Your task to perform on an android device: Open maps Image 0: 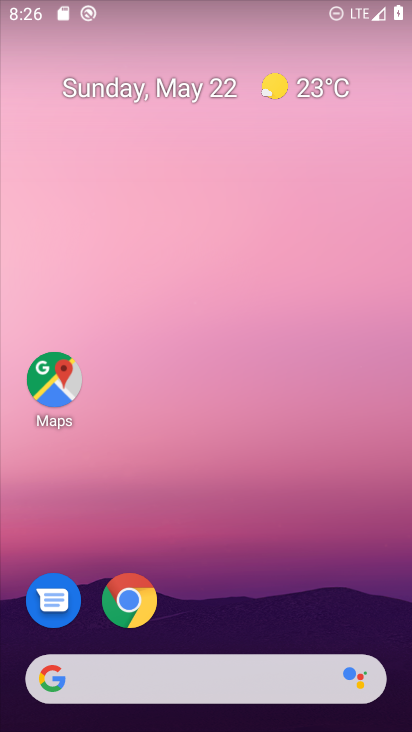
Step 0: drag from (341, 617) to (224, 124)
Your task to perform on an android device: Open maps Image 1: 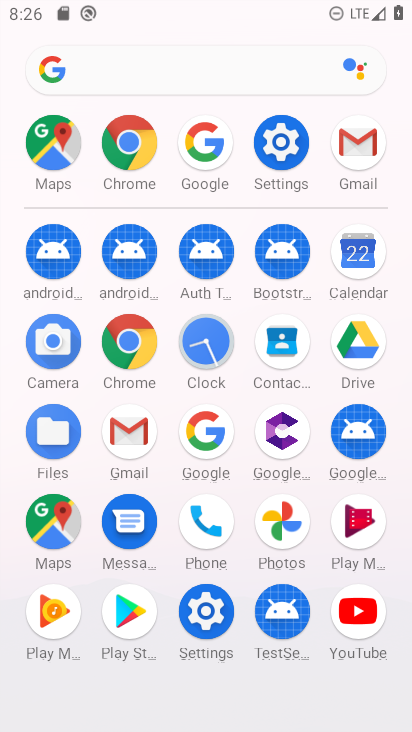
Step 1: click (45, 140)
Your task to perform on an android device: Open maps Image 2: 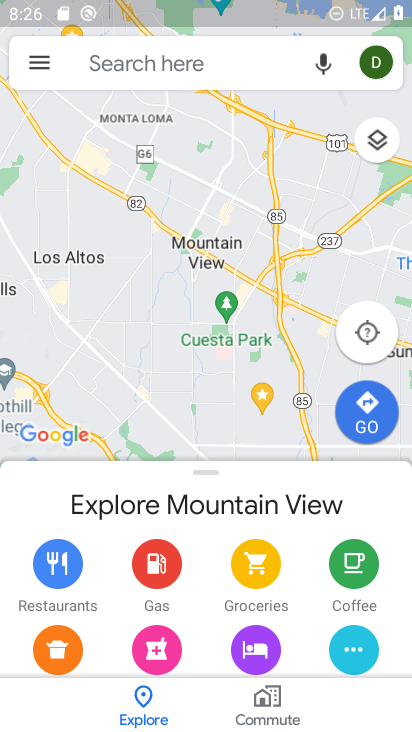
Step 2: task complete